Your task to perform on an android device: Check the news Image 0: 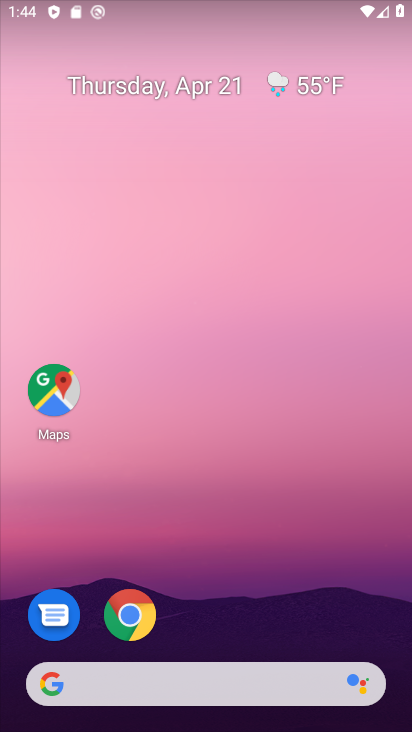
Step 0: drag from (185, 653) to (234, 345)
Your task to perform on an android device: Check the news Image 1: 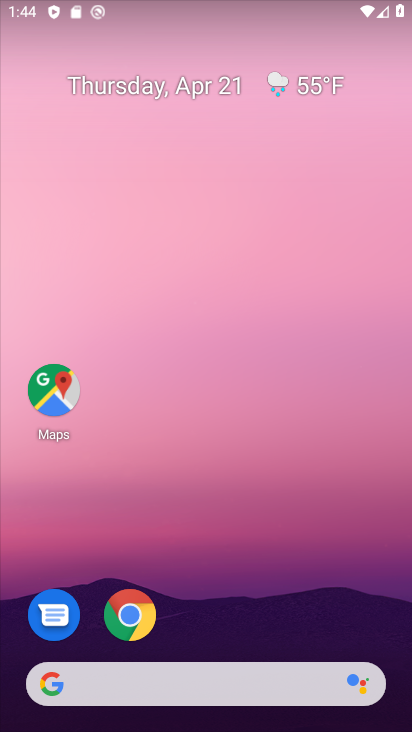
Step 1: drag from (223, 652) to (238, 330)
Your task to perform on an android device: Check the news Image 2: 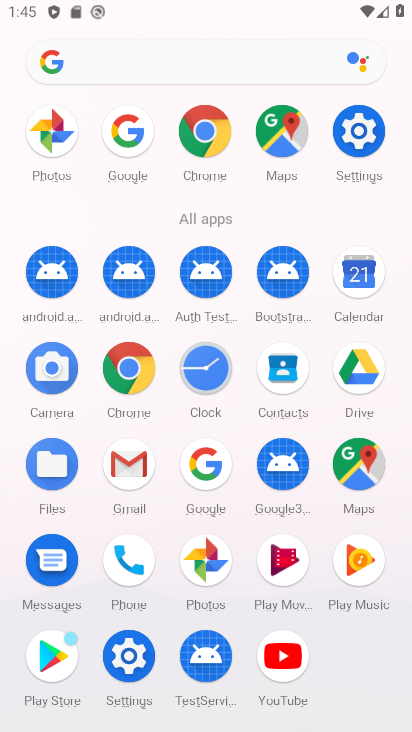
Step 2: click (208, 472)
Your task to perform on an android device: Check the news Image 3: 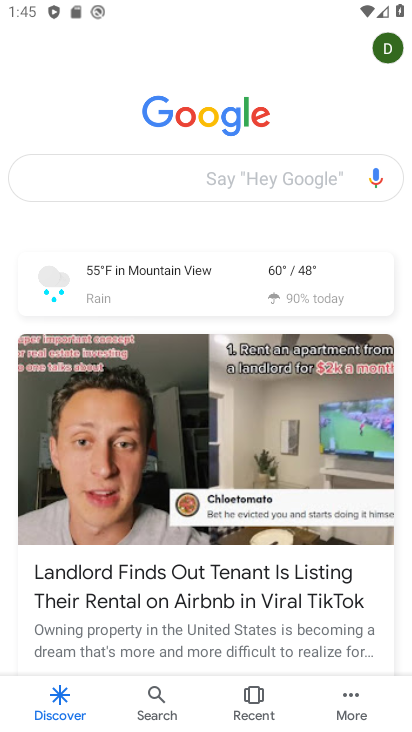
Step 3: click (212, 178)
Your task to perform on an android device: Check the news Image 4: 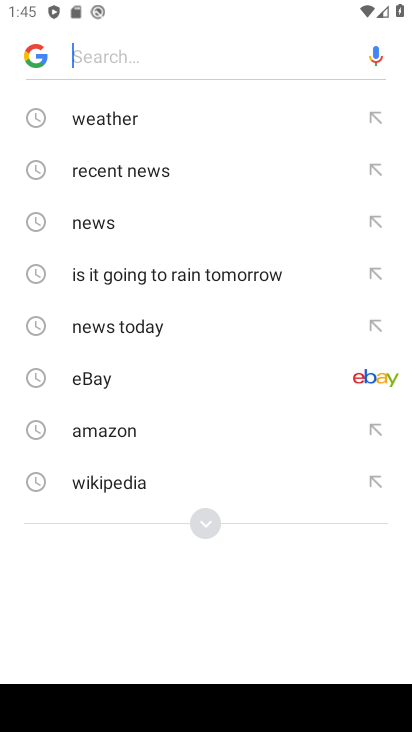
Step 4: click (94, 224)
Your task to perform on an android device: Check the news Image 5: 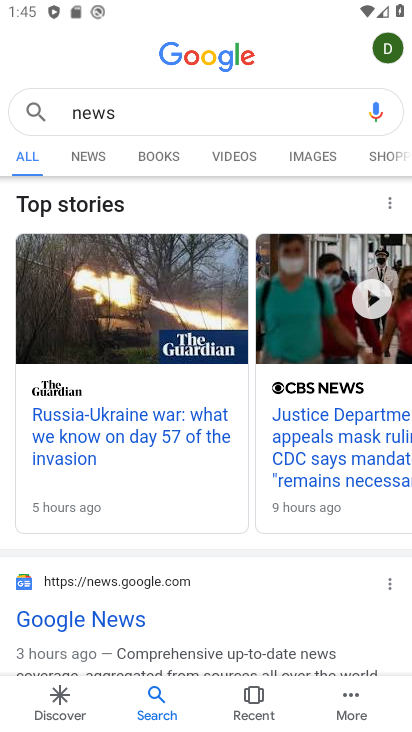
Step 5: drag from (134, 581) to (186, 305)
Your task to perform on an android device: Check the news Image 6: 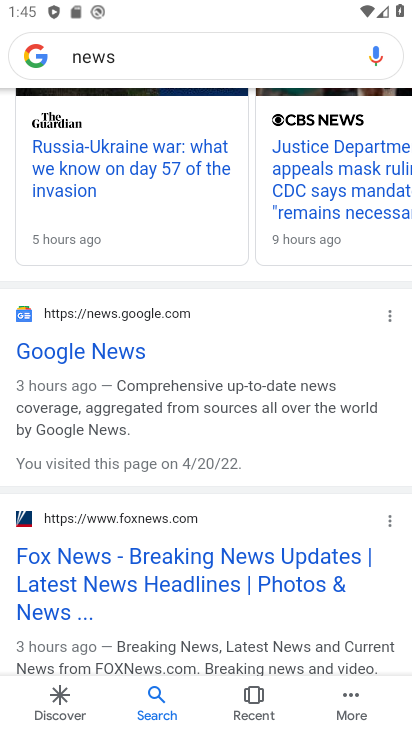
Step 6: click (105, 360)
Your task to perform on an android device: Check the news Image 7: 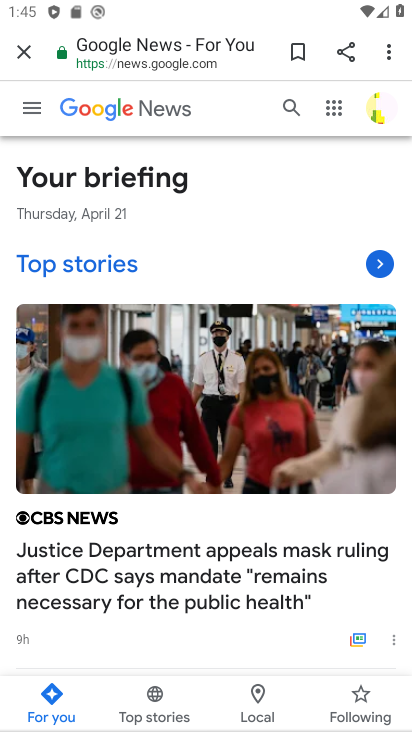
Step 7: task complete